Your task to perform on an android device: open app "Google Chat" Image 0: 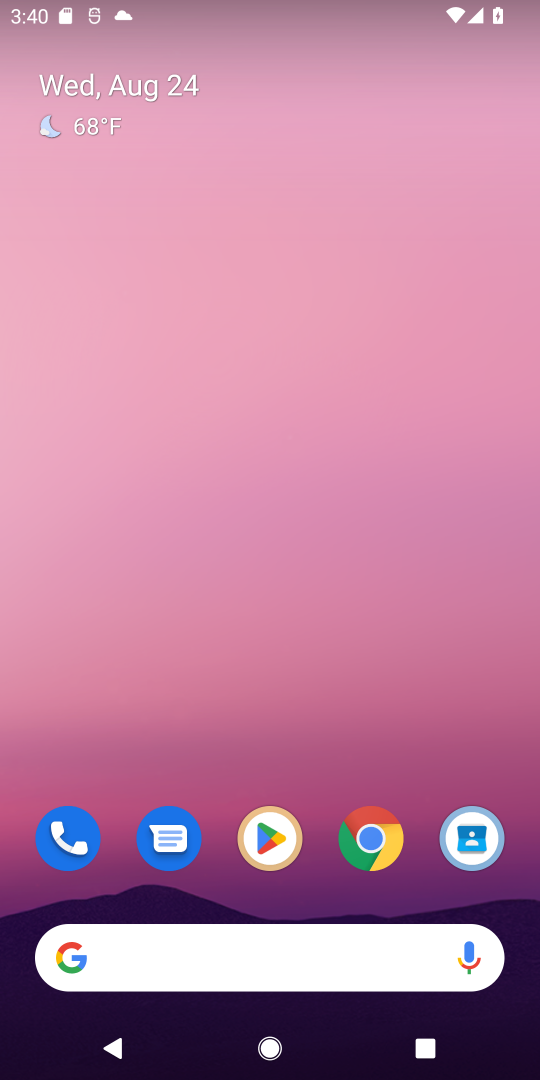
Step 0: click (282, 860)
Your task to perform on an android device: open app "Google Chat" Image 1: 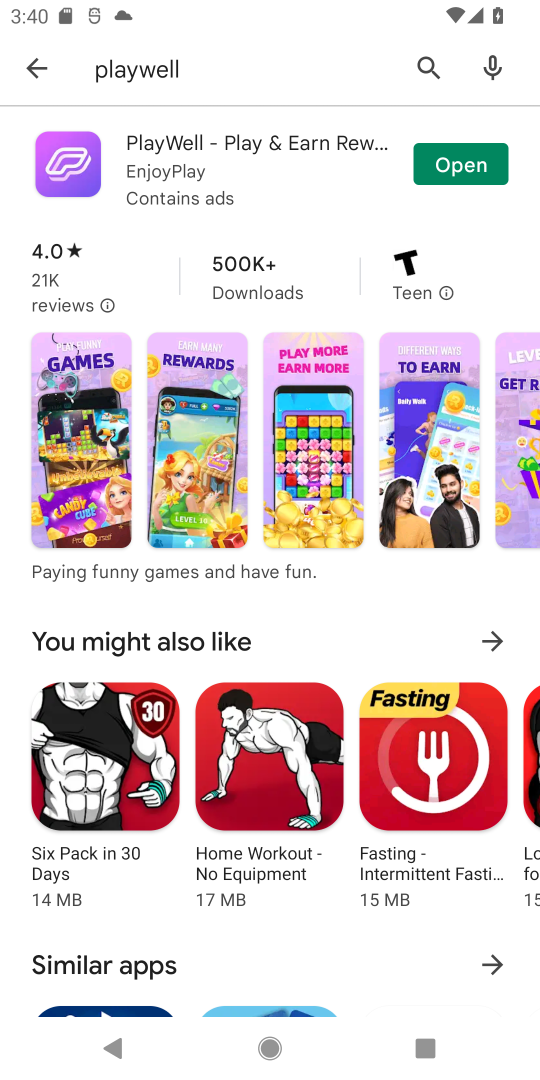
Step 1: click (32, 75)
Your task to perform on an android device: open app "Google Chat" Image 2: 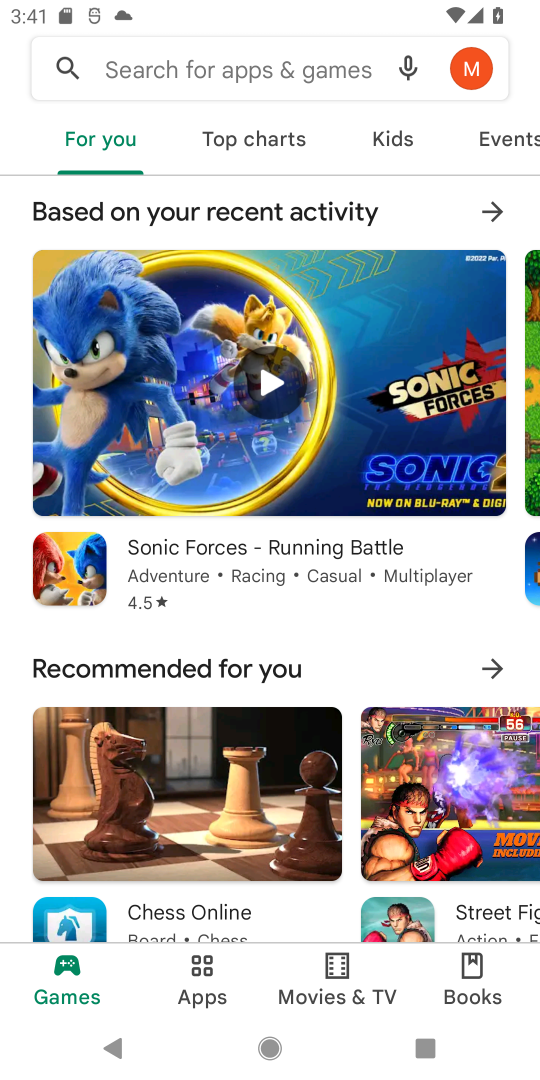
Step 2: click (160, 57)
Your task to perform on an android device: open app "Google Chat" Image 3: 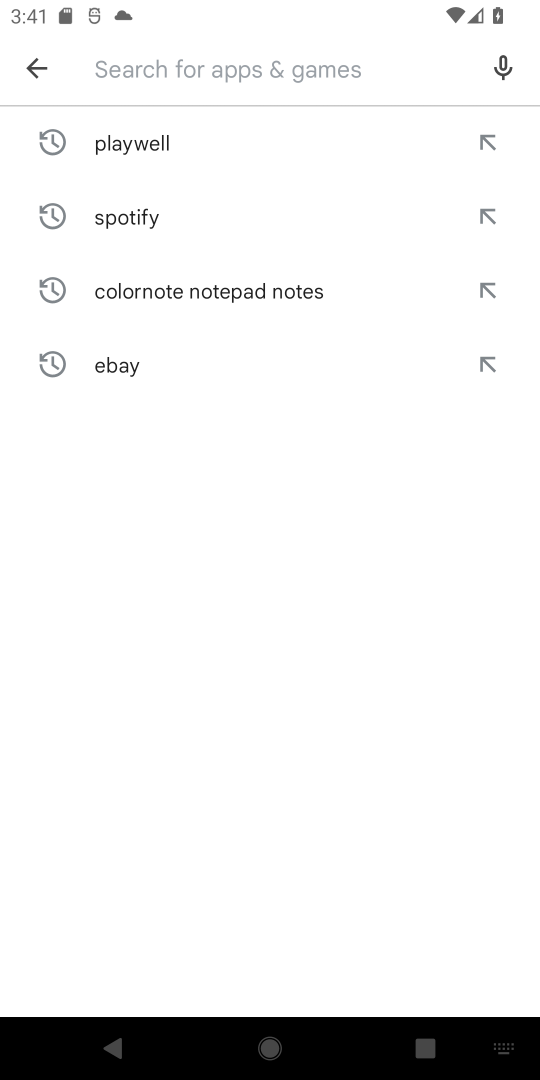
Step 3: type "Google Chat"
Your task to perform on an android device: open app "Google Chat" Image 4: 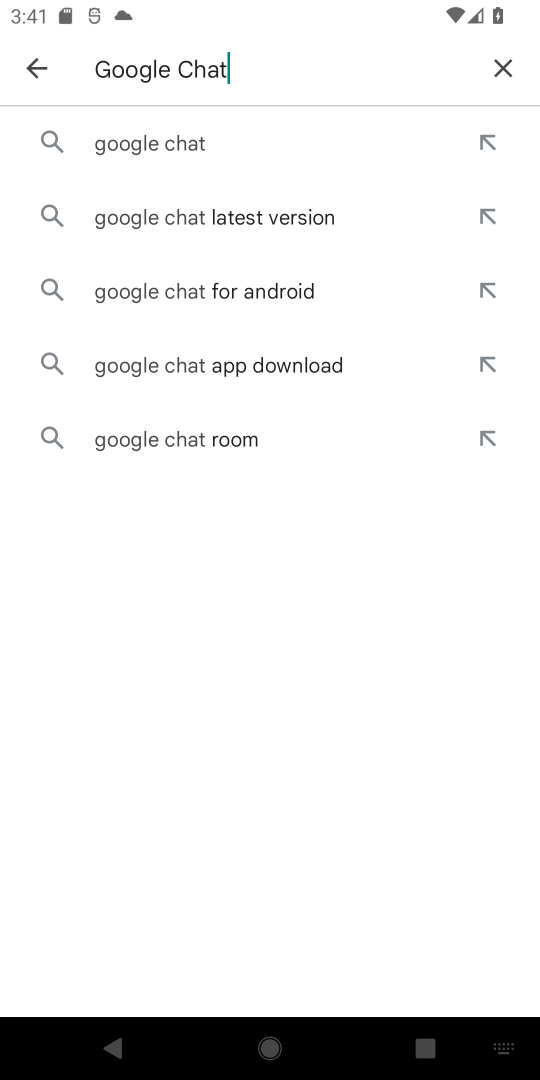
Step 4: click (158, 138)
Your task to perform on an android device: open app "Google Chat" Image 5: 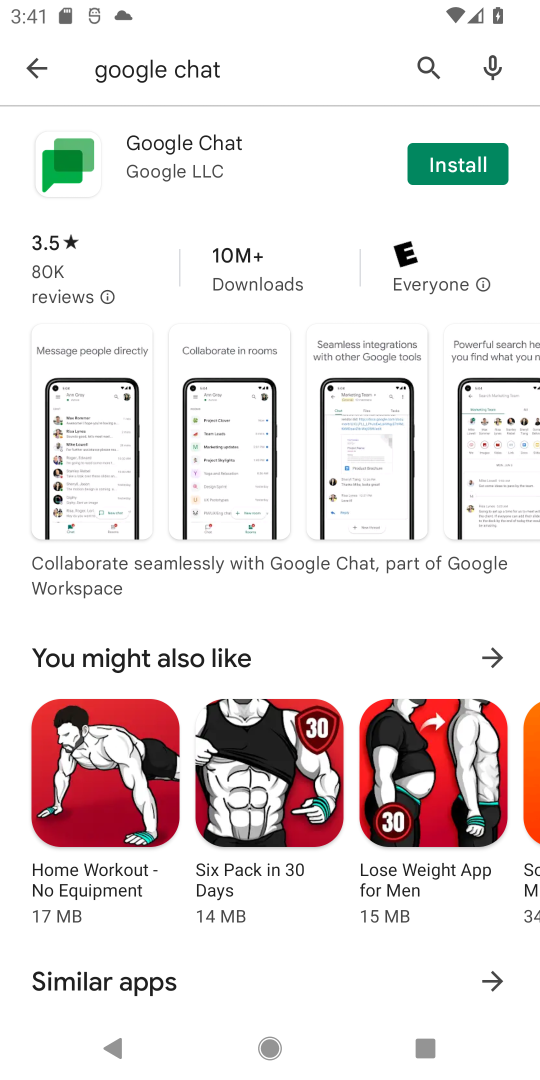
Step 5: task complete